Your task to perform on an android device: check the backup settings in the google photos Image 0: 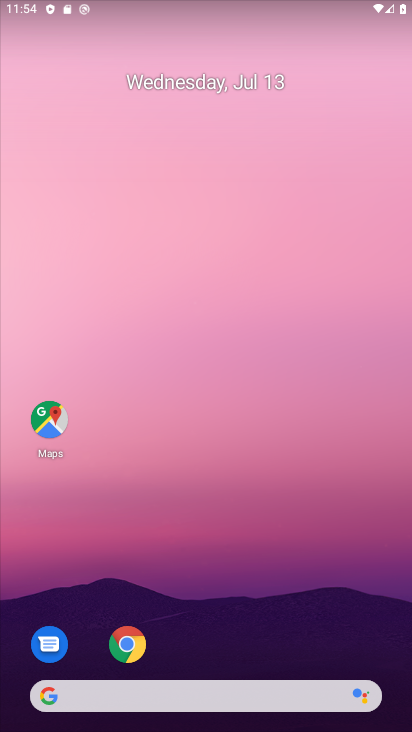
Step 0: drag from (191, 658) to (111, 142)
Your task to perform on an android device: check the backup settings in the google photos Image 1: 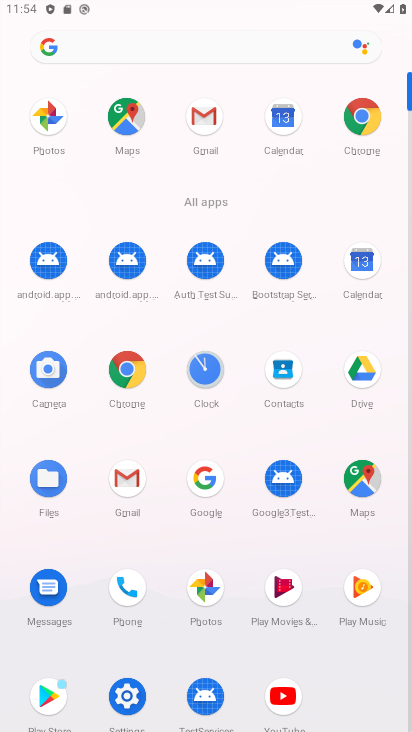
Step 1: click (211, 611)
Your task to perform on an android device: check the backup settings in the google photos Image 2: 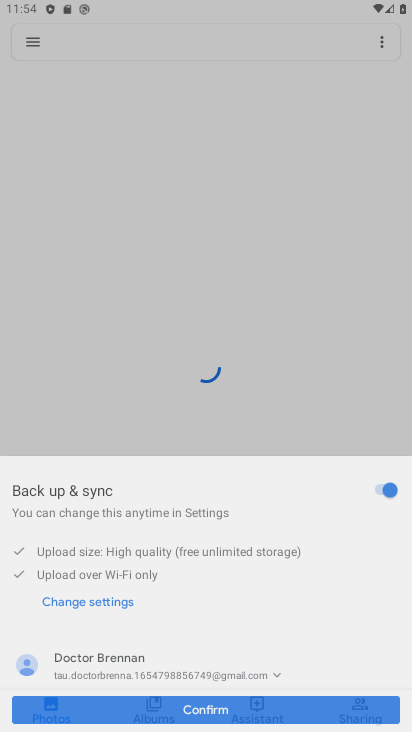
Step 2: click (38, 42)
Your task to perform on an android device: check the backup settings in the google photos Image 3: 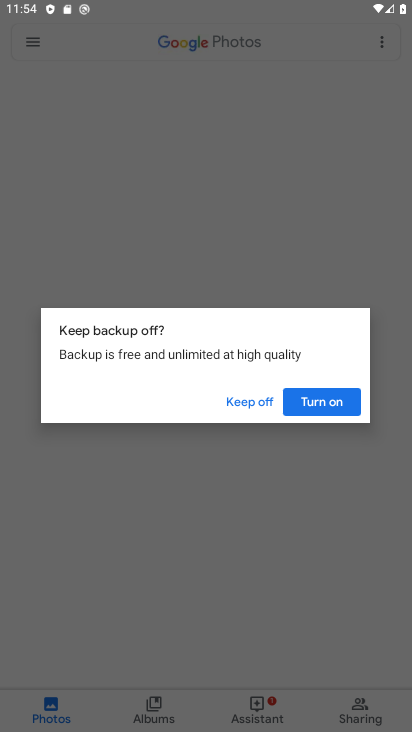
Step 3: click (297, 409)
Your task to perform on an android device: check the backup settings in the google photos Image 4: 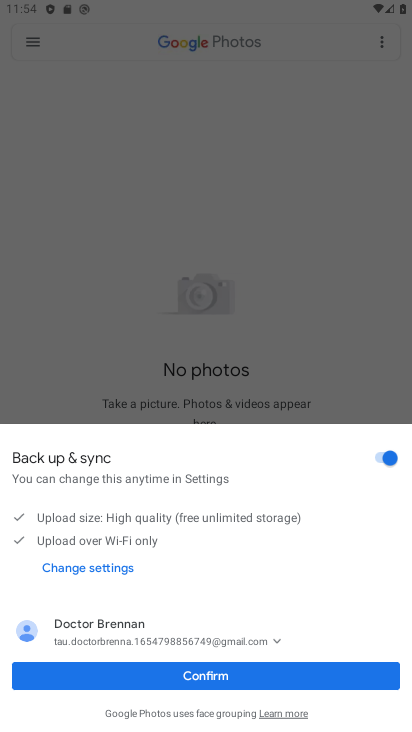
Step 4: click (297, 409)
Your task to perform on an android device: check the backup settings in the google photos Image 5: 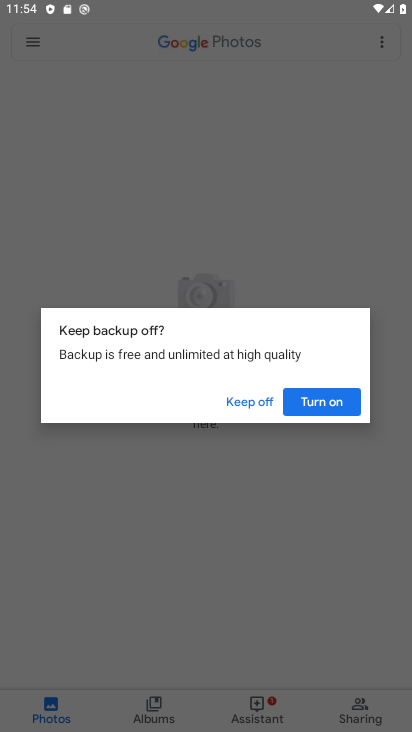
Step 5: click (340, 405)
Your task to perform on an android device: check the backup settings in the google photos Image 6: 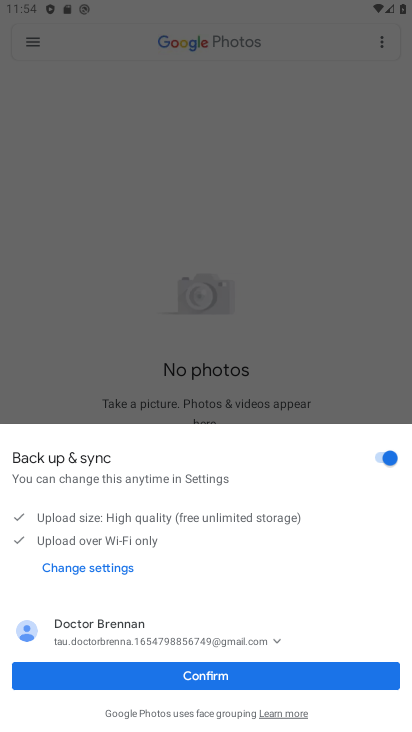
Step 6: click (211, 675)
Your task to perform on an android device: check the backup settings in the google photos Image 7: 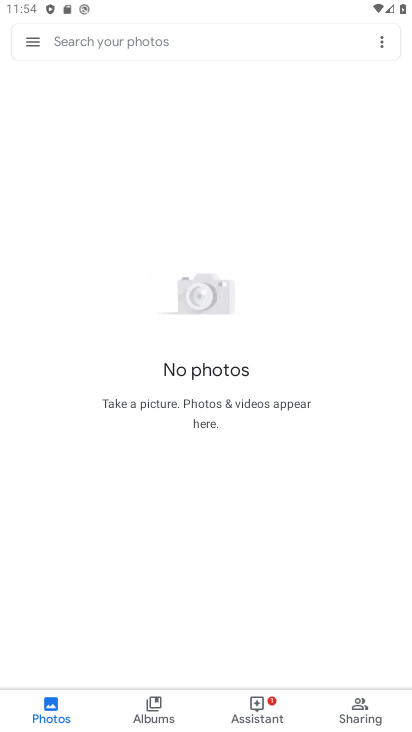
Step 7: click (36, 42)
Your task to perform on an android device: check the backup settings in the google photos Image 8: 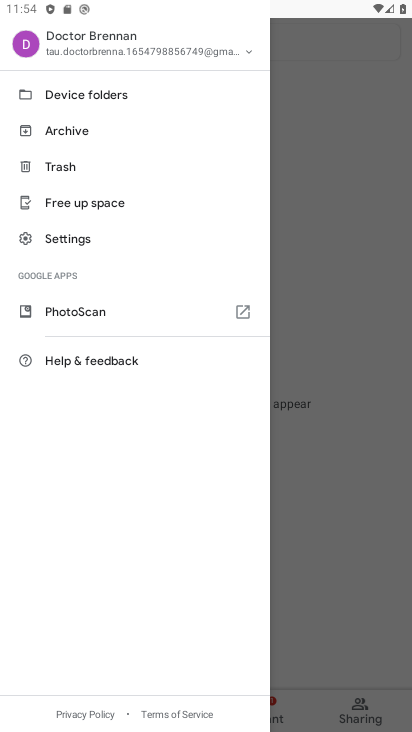
Step 8: click (79, 238)
Your task to perform on an android device: check the backup settings in the google photos Image 9: 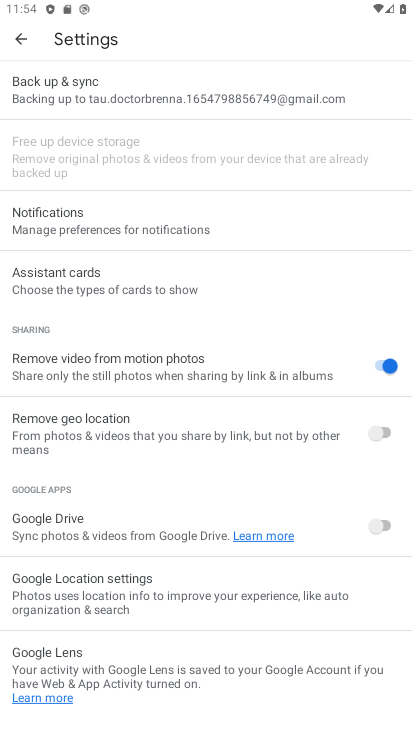
Step 9: click (45, 103)
Your task to perform on an android device: check the backup settings in the google photos Image 10: 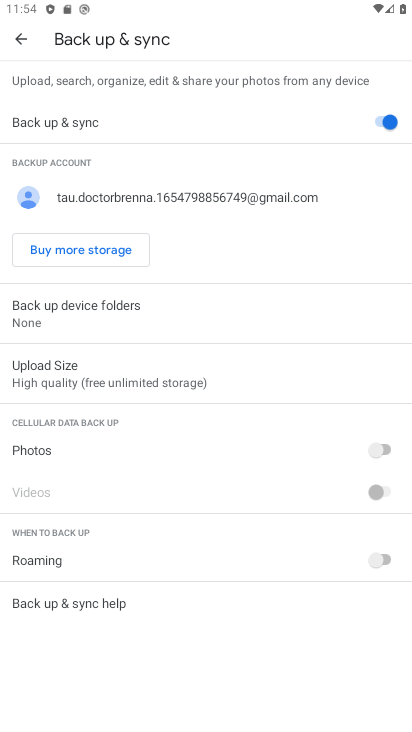
Step 10: task complete